Your task to perform on an android device: Go to network settings Image 0: 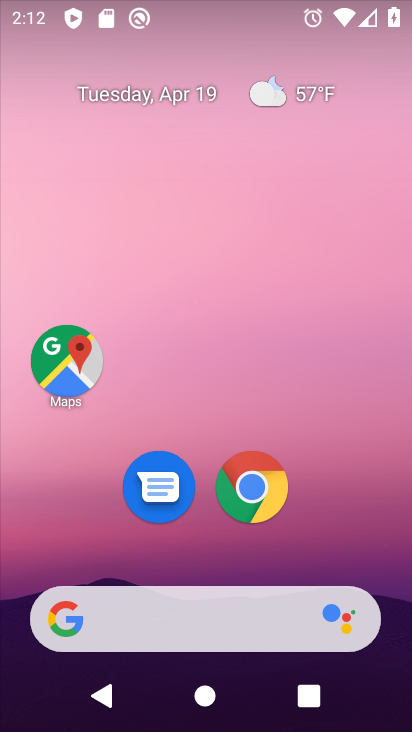
Step 0: drag from (379, 542) to (328, 102)
Your task to perform on an android device: Go to network settings Image 1: 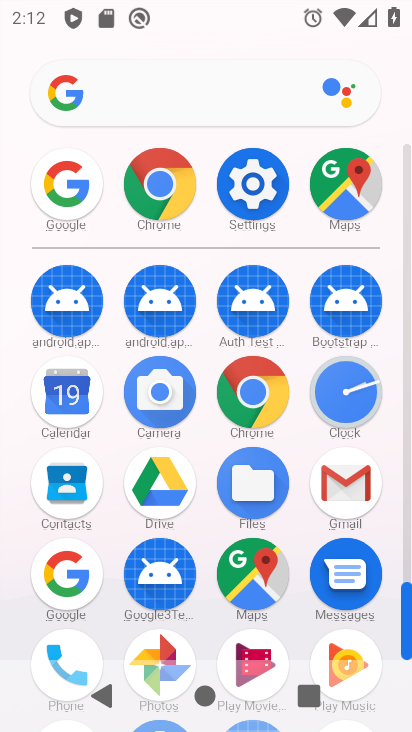
Step 1: drag from (386, 505) to (369, 191)
Your task to perform on an android device: Go to network settings Image 2: 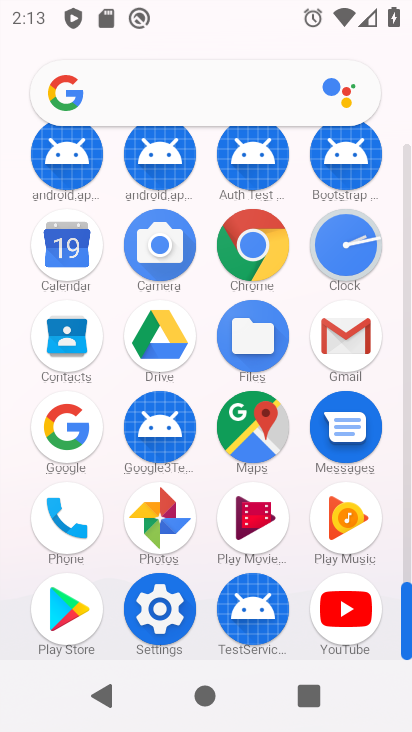
Step 2: click (141, 627)
Your task to perform on an android device: Go to network settings Image 3: 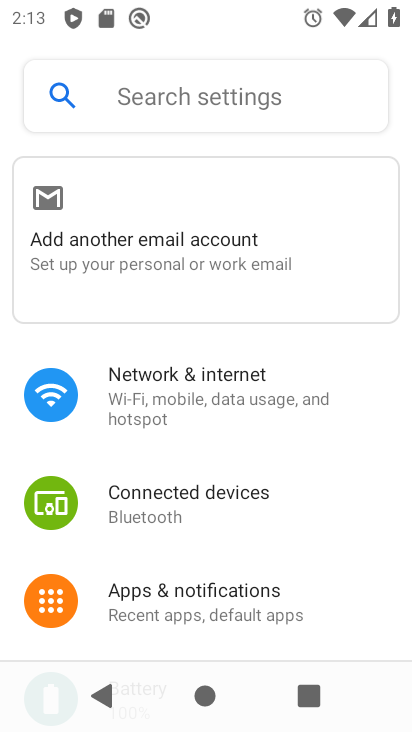
Step 3: click (183, 379)
Your task to perform on an android device: Go to network settings Image 4: 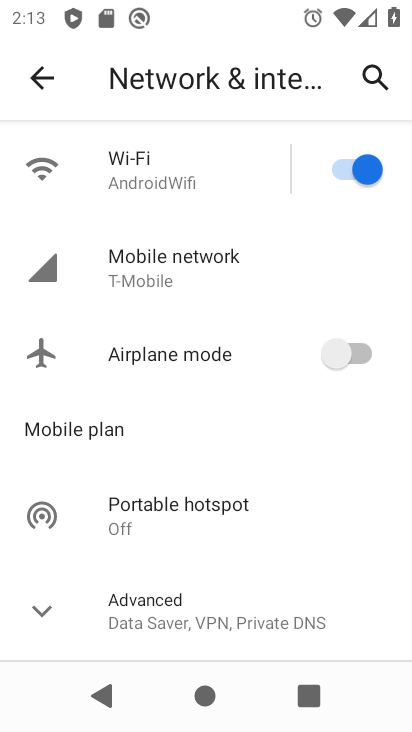
Step 4: click (170, 273)
Your task to perform on an android device: Go to network settings Image 5: 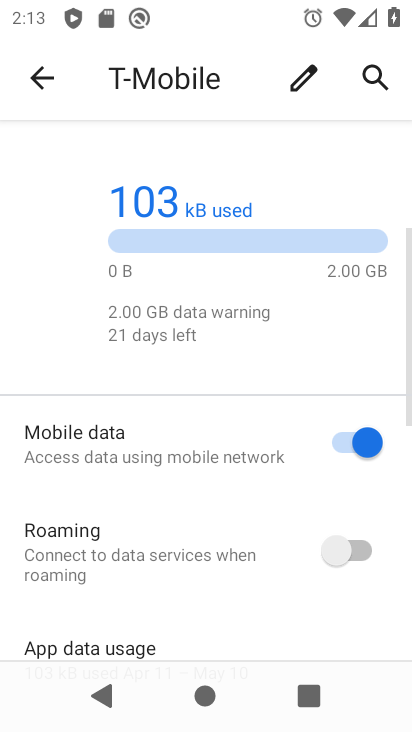
Step 5: task complete